Your task to perform on an android device: Open calendar and show me the fourth week of next month Image 0: 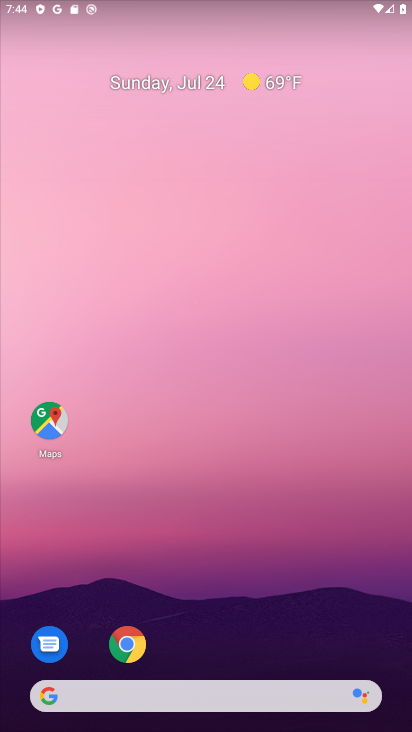
Step 0: drag from (167, 678) to (210, 206)
Your task to perform on an android device: Open calendar and show me the fourth week of next month Image 1: 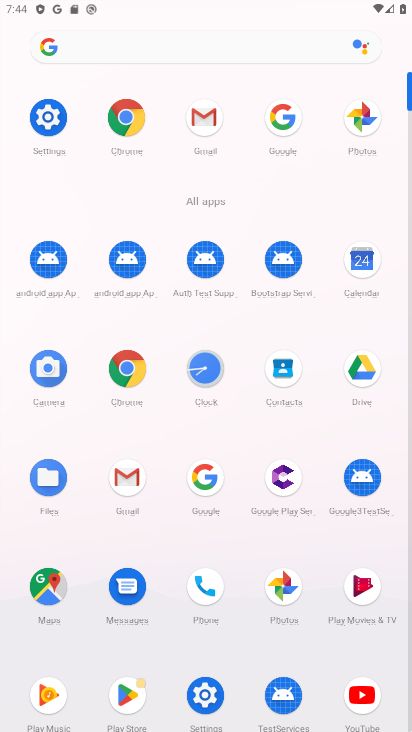
Step 1: click (361, 262)
Your task to perform on an android device: Open calendar and show me the fourth week of next month Image 2: 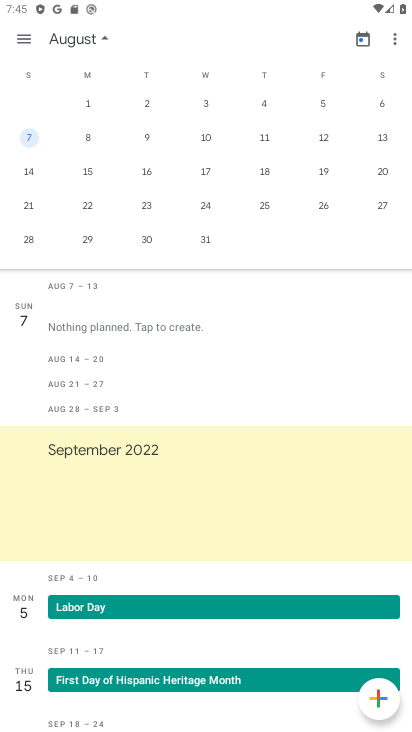
Step 2: click (30, 202)
Your task to perform on an android device: Open calendar and show me the fourth week of next month Image 3: 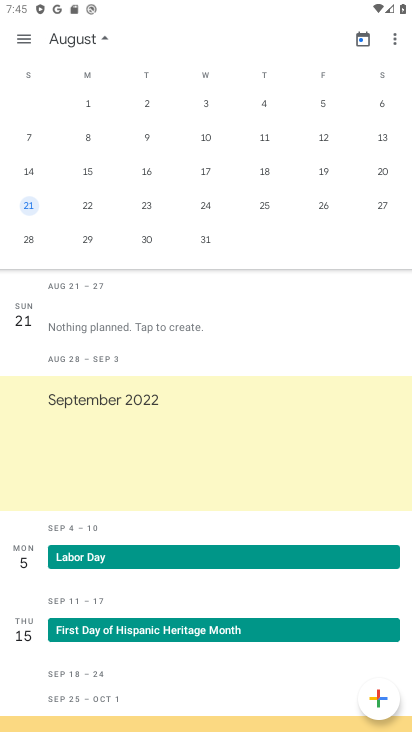
Step 3: task complete